Your task to perform on an android device: check google app version Image 0: 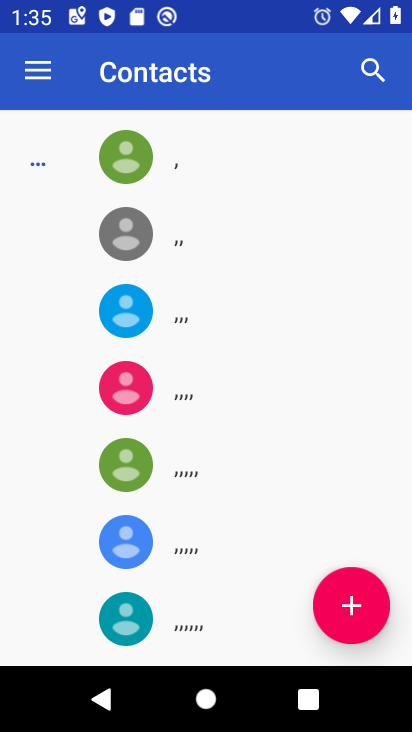
Step 0: press home button
Your task to perform on an android device: check google app version Image 1: 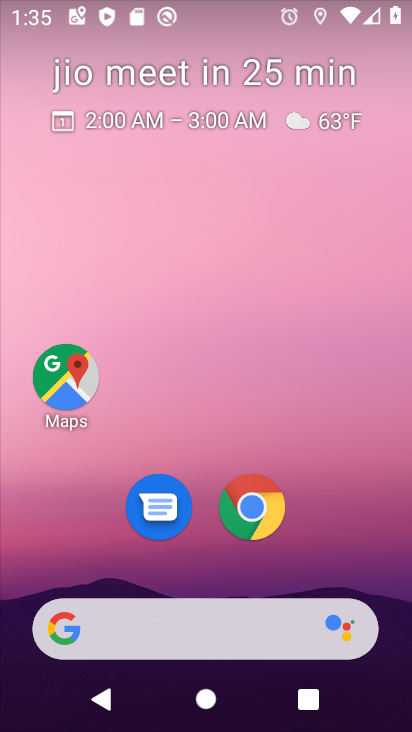
Step 1: click (258, 624)
Your task to perform on an android device: check google app version Image 2: 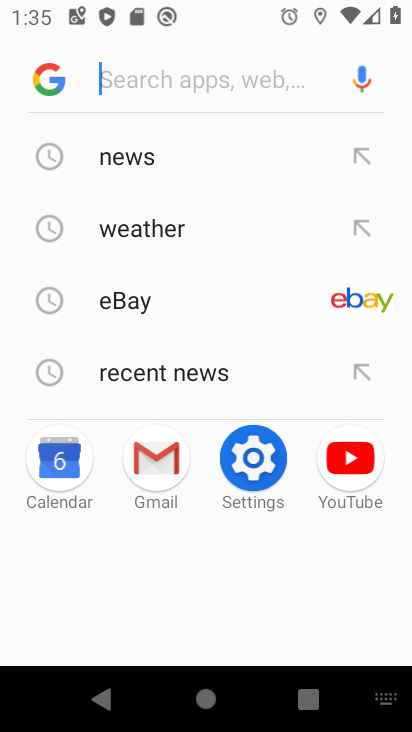
Step 2: click (41, 66)
Your task to perform on an android device: check google app version Image 3: 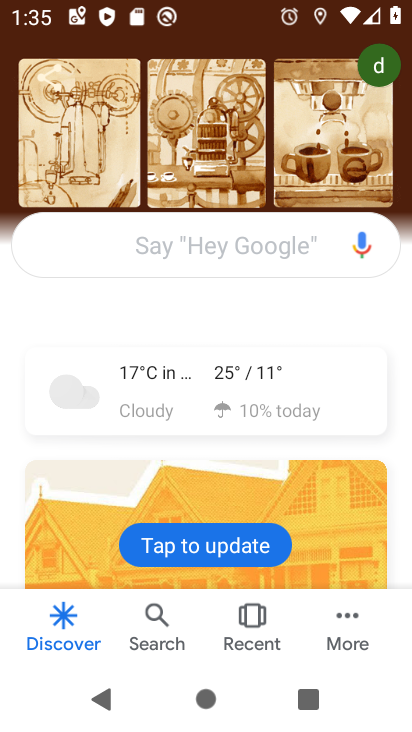
Step 3: click (344, 625)
Your task to perform on an android device: check google app version Image 4: 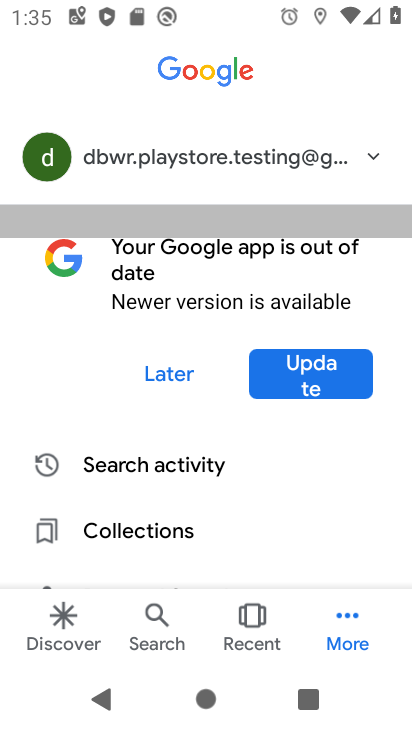
Step 4: drag from (280, 500) to (277, 183)
Your task to perform on an android device: check google app version Image 5: 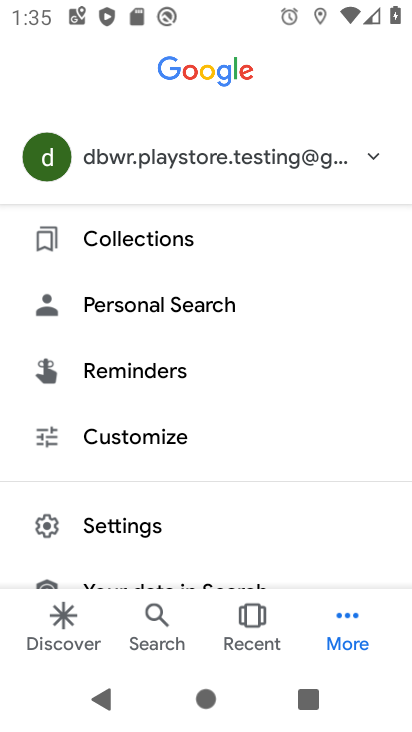
Step 5: click (145, 523)
Your task to perform on an android device: check google app version Image 6: 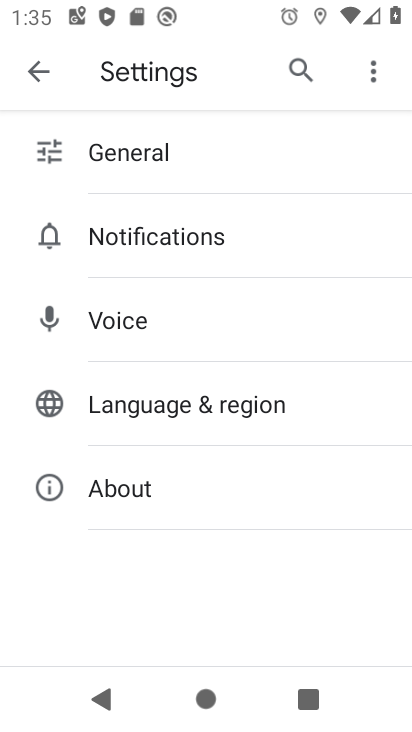
Step 6: click (207, 473)
Your task to perform on an android device: check google app version Image 7: 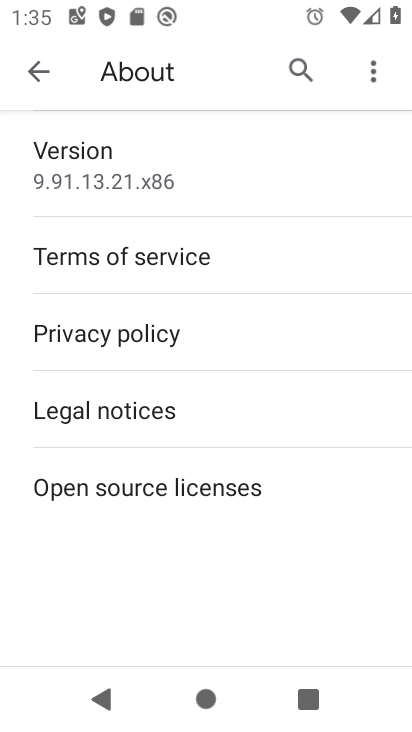
Step 7: task complete